Your task to perform on an android device: Go to Android settings Image 0: 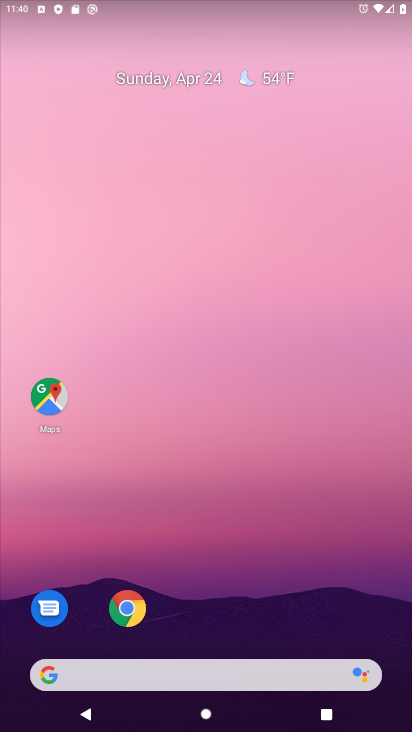
Step 0: drag from (377, 617) to (370, 85)
Your task to perform on an android device: Go to Android settings Image 1: 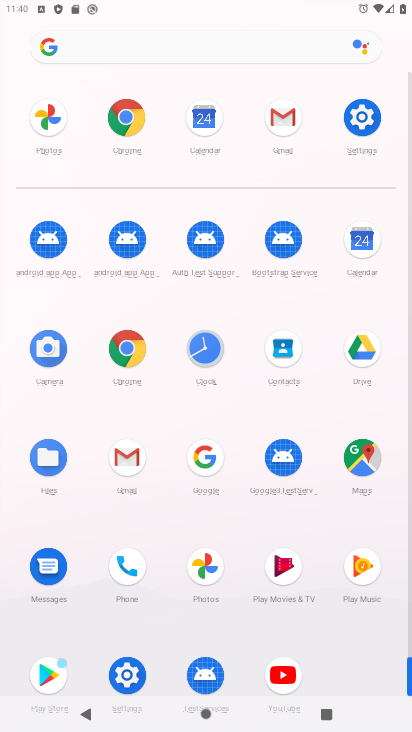
Step 1: click (408, 643)
Your task to perform on an android device: Go to Android settings Image 2: 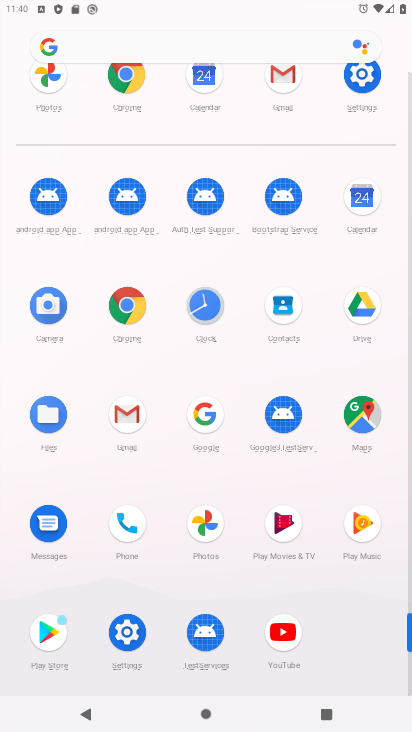
Step 2: click (126, 630)
Your task to perform on an android device: Go to Android settings Image 3: 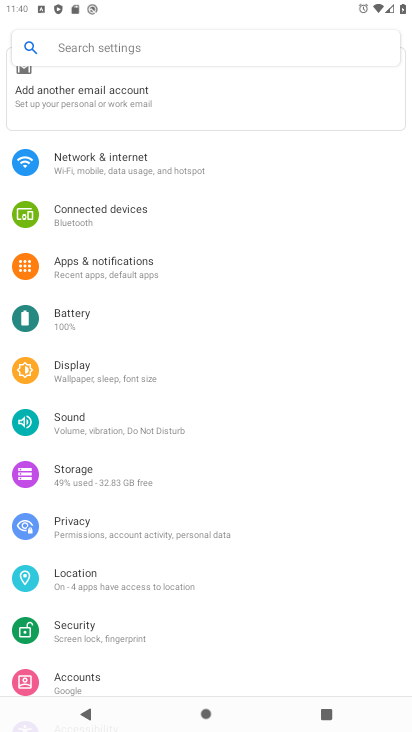
Step 3: drag from (252, 590) to (277, 231)
Your task to perform on an android device: Go to Android settings Image 4: 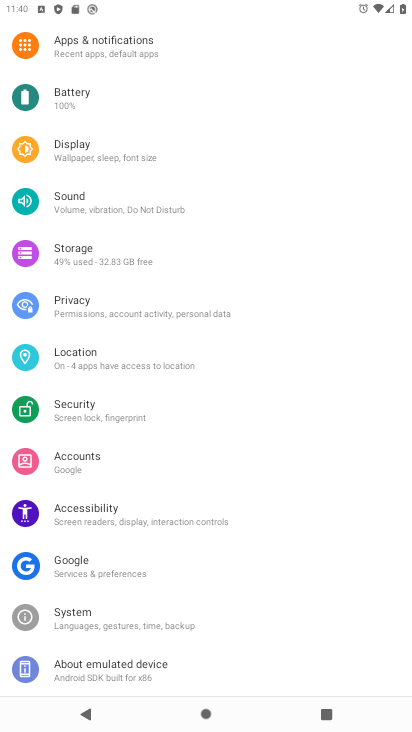
Step 4: click (85, 671)
Your task to perform on an android device: Go to Android settings Image 5: 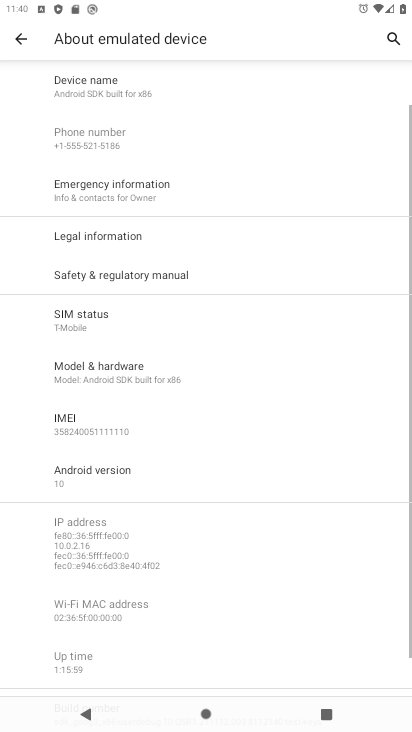
Step 5: task complete